Your task to perform on an android device: Open settings on Google Maps Image 0: 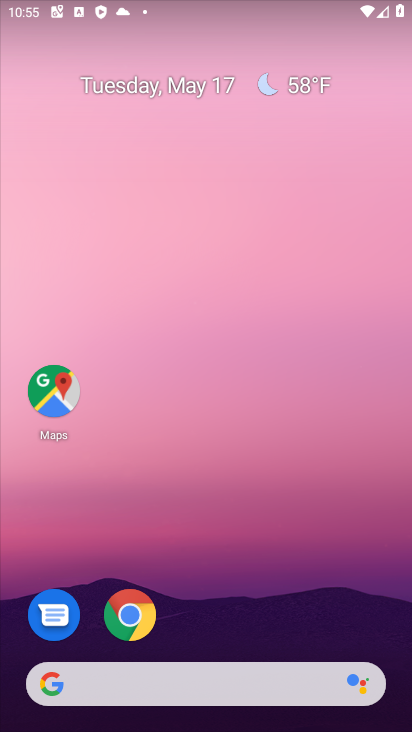
Step 0: click (51, 389)
Your task to perform on an android device: Open settings on Google Maps Image 1: 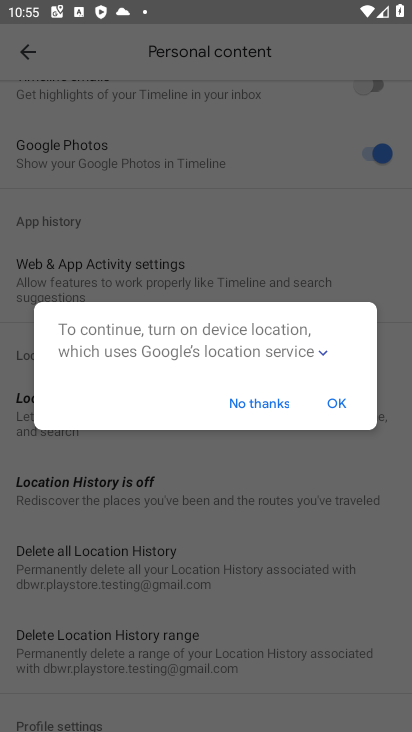
Step 1: click (341, 407)
Your task to perform on an android device: Open settings on Google Maps Image 2: 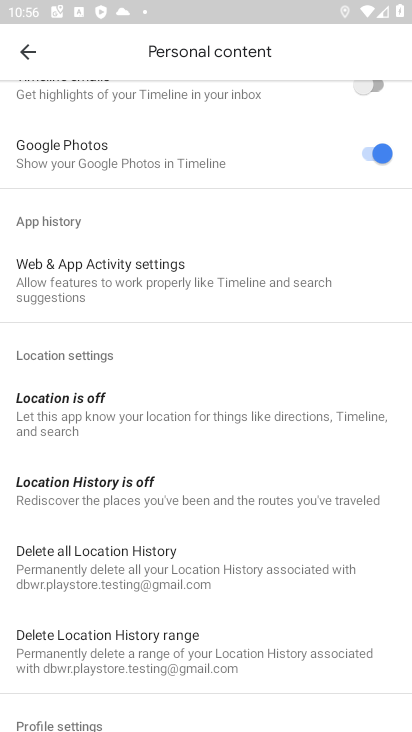
Step 2: task complete